Your task to perform on an android device: turn on notifications settings in the gmail app Image 0: 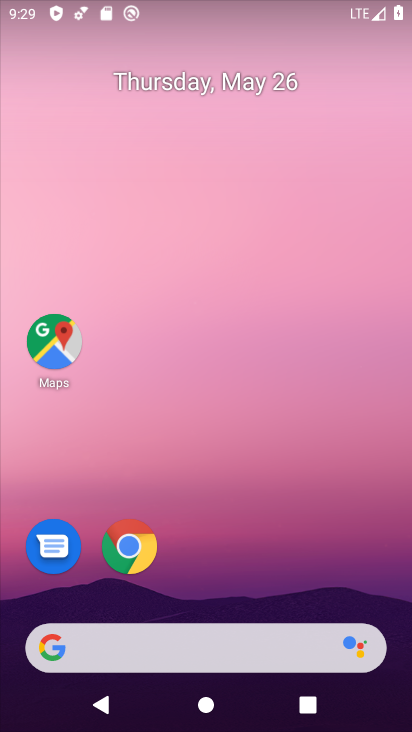
Step 0: drag from (357, 508) to (308, 183)
Your task to perform on an android device: turn on notifications settings in the gmail app Image 1: 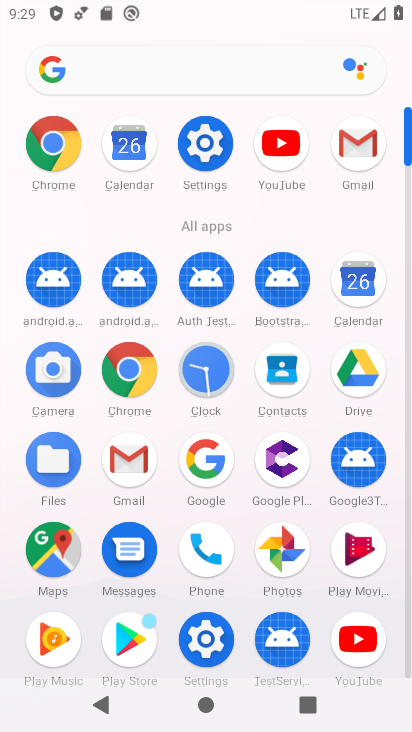
Step 1: click (137, 456)
Your task to perform on an android device: turn on notifications settings in the gmail app Image 2: 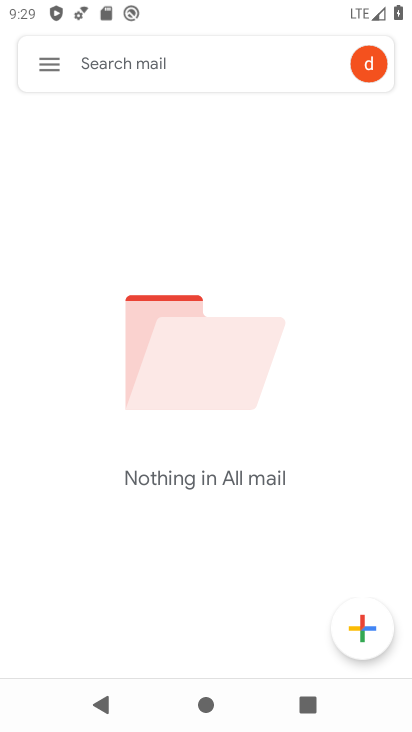
Step 2: click (57, 62)
Your task to perform on an android device: turn on notifications settings in the gmail app Image 3: 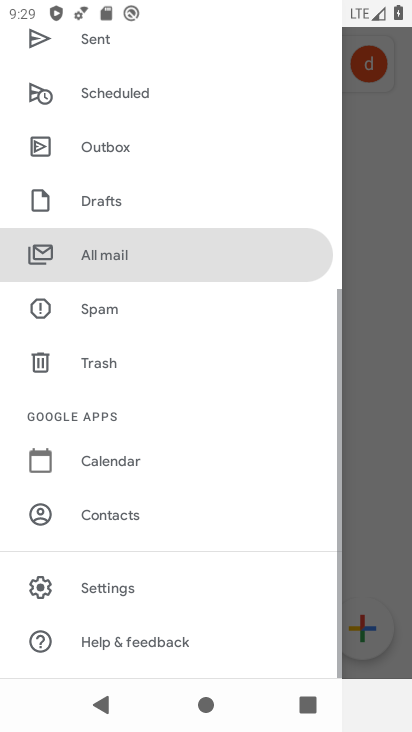
Step 3: drag from (181, 615) to (180, 257)
Your task to perform on an android device: turn on notifications settings in the gmail app Image 4: 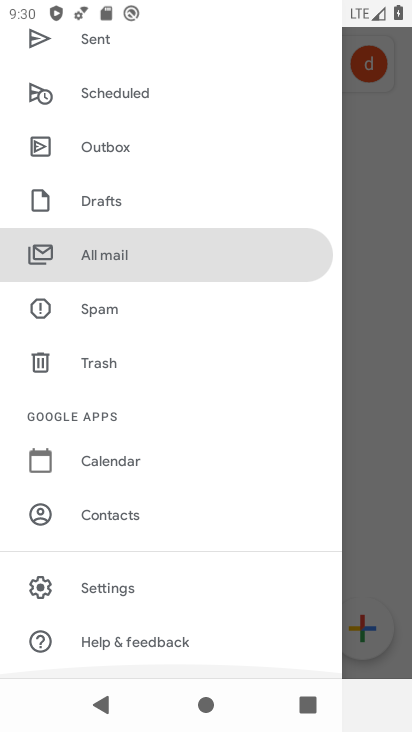
Step 4: click (177, 588)
Your task to perform on an android device: turn on notifications settings in the gmail app Image 5: 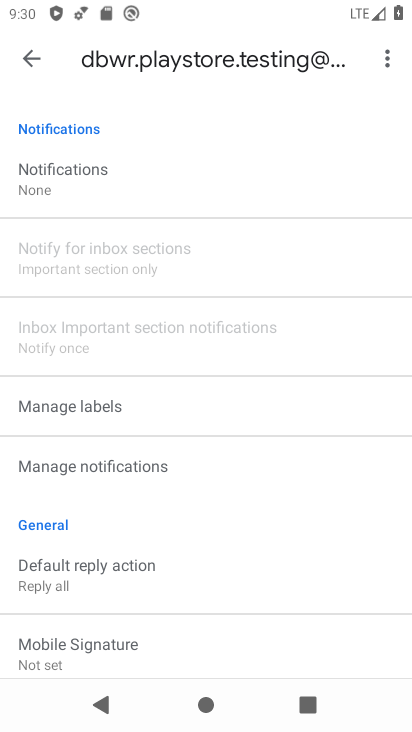
Step 5: drag from (244, 593) to (239, 306)
Your task to perform on an android device: turn on notifications settings in the gmail app Image 6: 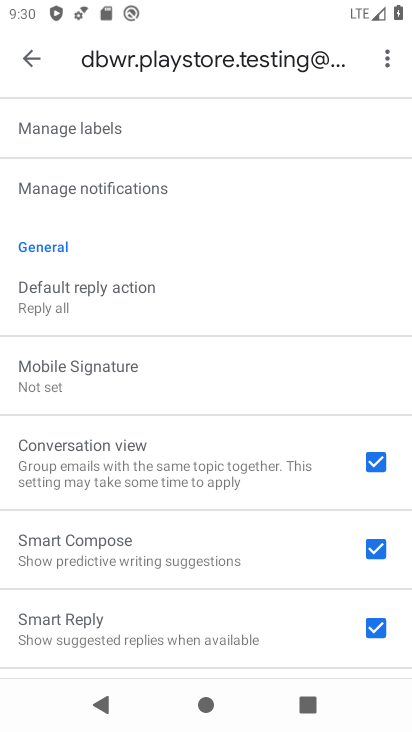
Step 6: drag from (215, 166) to (207, 595)
Your task to perform on an android device: turn on notifications settings in the gmail app Image 7: 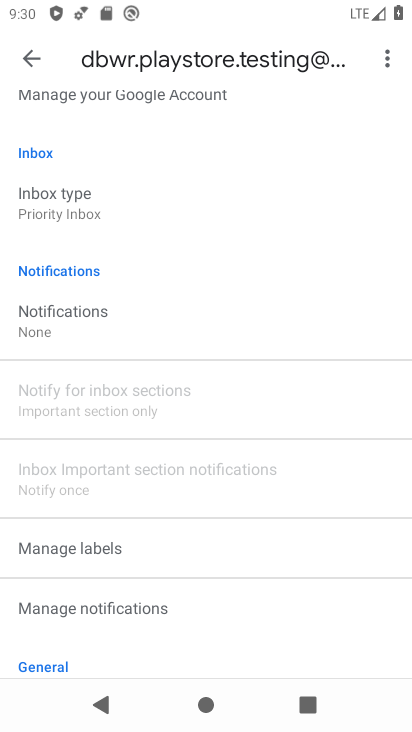
Step 7: click (124, 338)
Your task to perform on an android device: turn on notifications settings in the gmail app Image 8: 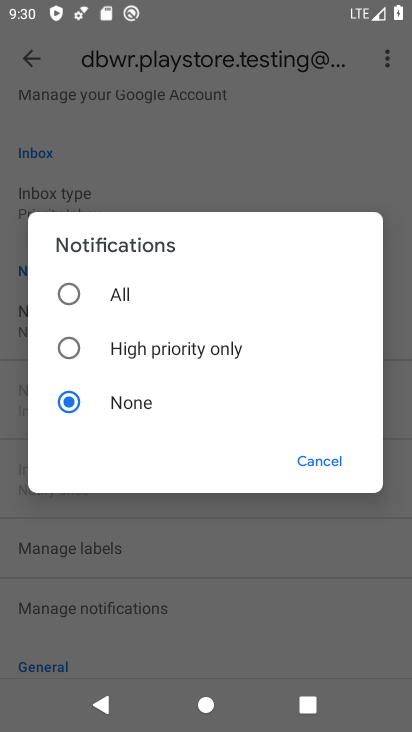
Step 8: click (76, 292)
Your task to perform on an android device: turn on notifications settings in the gmail app Image 9: 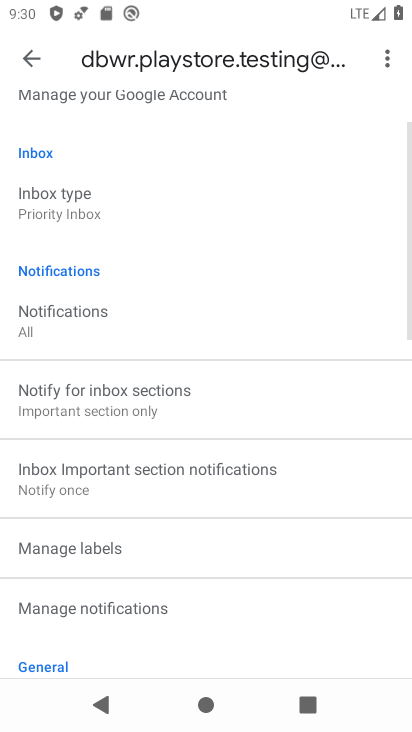
Step 9: task complete